Your task to perform on an android device: find which apps use the phone's location Image 0: 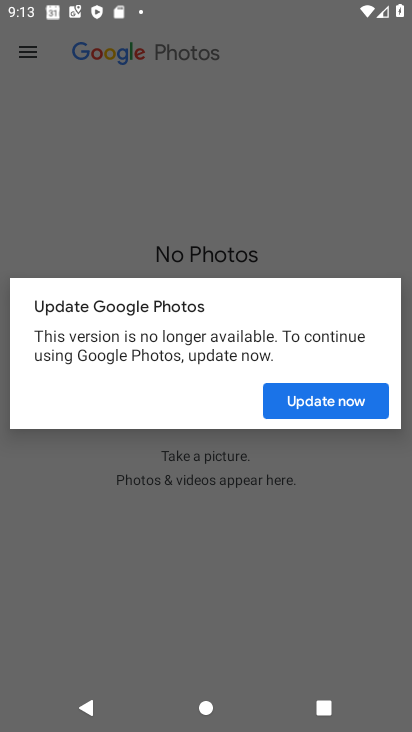
Step 0: press home button
Your task to perform on an android device: find which apps use the phone's location Image 1: 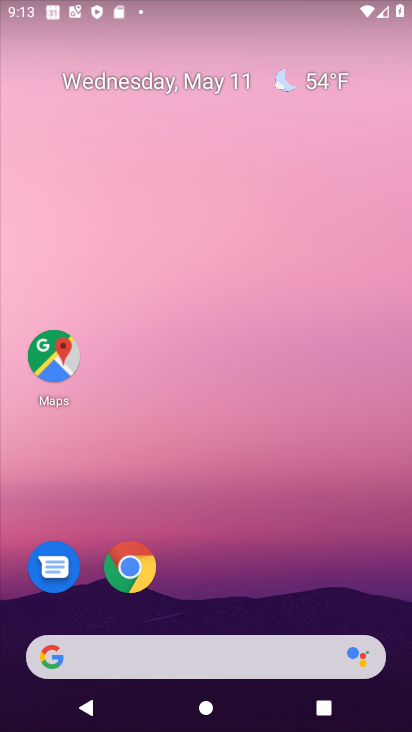
Step 1: drag from (209, 615) to (221, 325)
Your task to perform on an android device: find which apps use the phone's location Image 2: 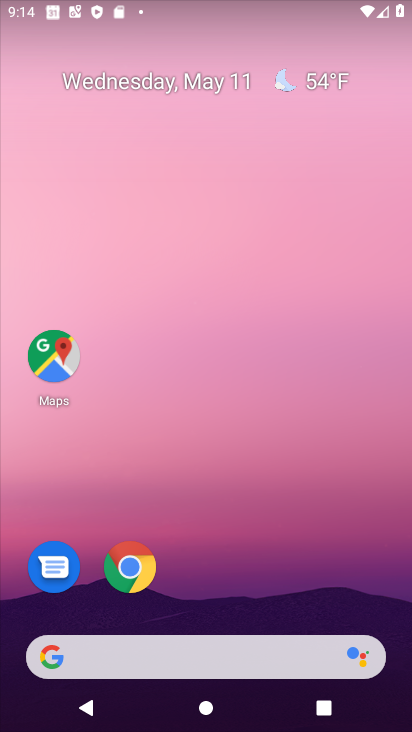
Step 2: drag from (226, 594) to (288, 29)
Your task to perform on an android device: find which apps use the phone's location Image 3: 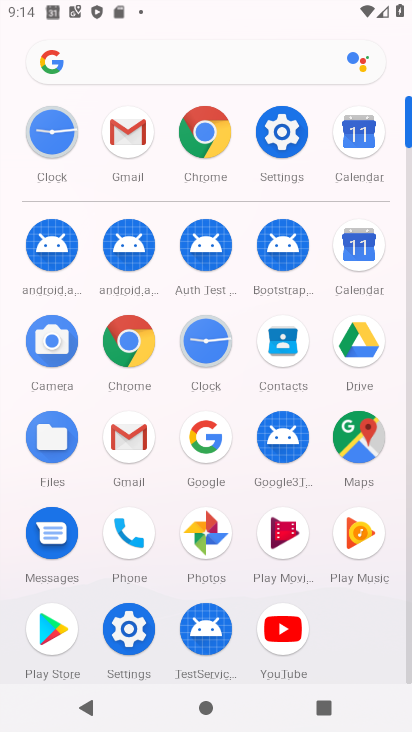
Step 3: click (288, 186)
Your task to perform on an android device: find which apps use the phone's location Image 4: 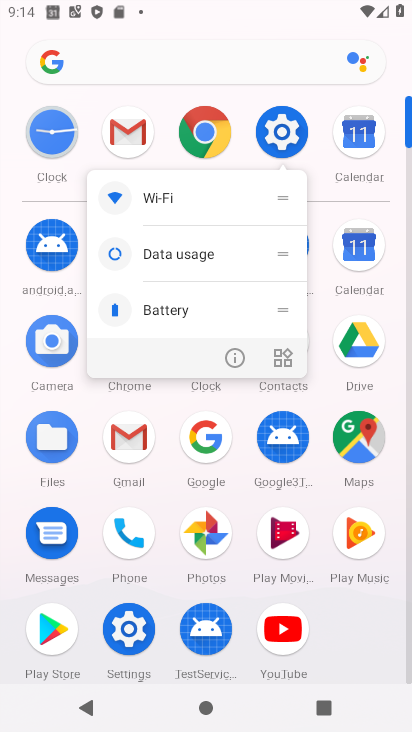
Step 4: click (285, 147)
Your task to perform on an android device: find which apps use the phone's location Image 5: 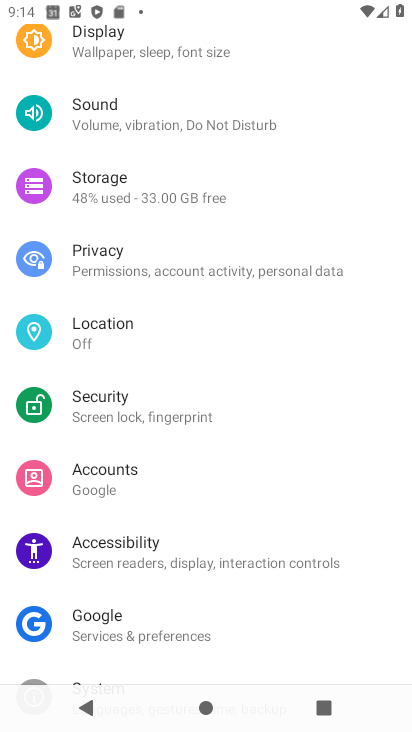
Step 5: click (128, 338)
Your task to perform on an android device: find which apps use the phone's location Image 6: 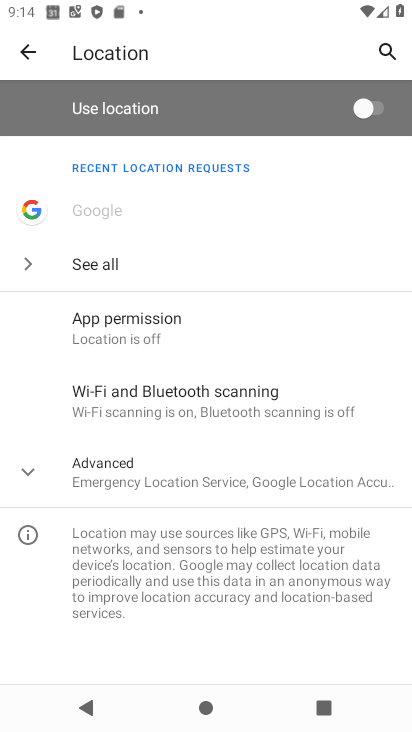
Step 6: click (168, 333)
Your task to perform on an android device: find which apps use the phone's location Image 7: 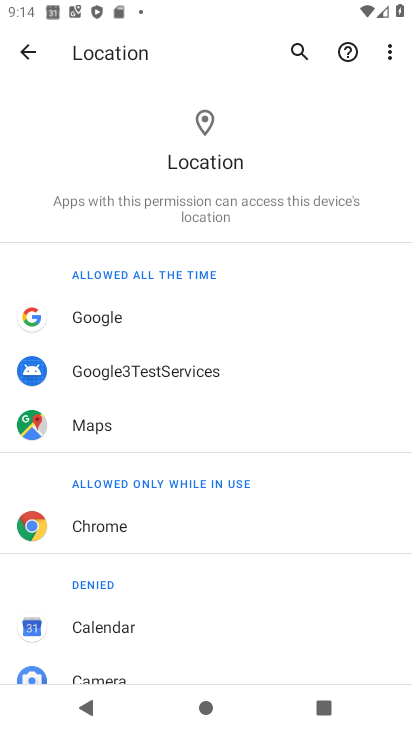
Step 7: task complete